Your task to perform on an android device: Go to display settings Image 0: 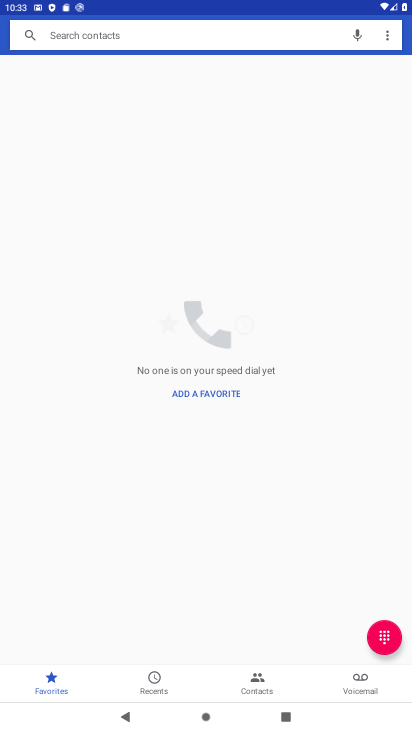
Step 0: press home button
Your task to perform on an android device: Go to display settings Image 1: 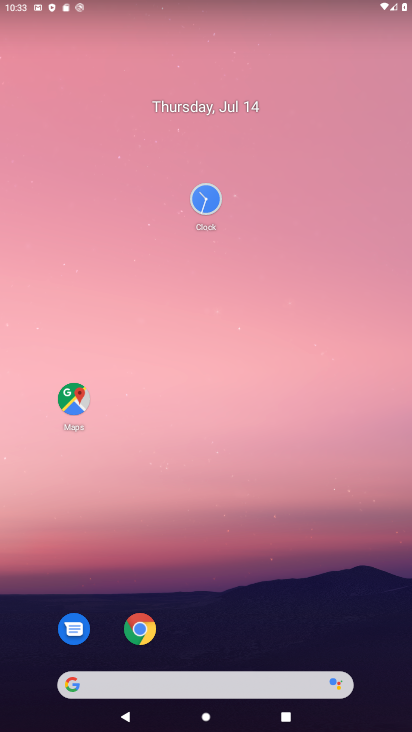
Step 1: drag from (284, 625) to (258, 142)
Your task to perform on an android device: Go to display settings Image 2: 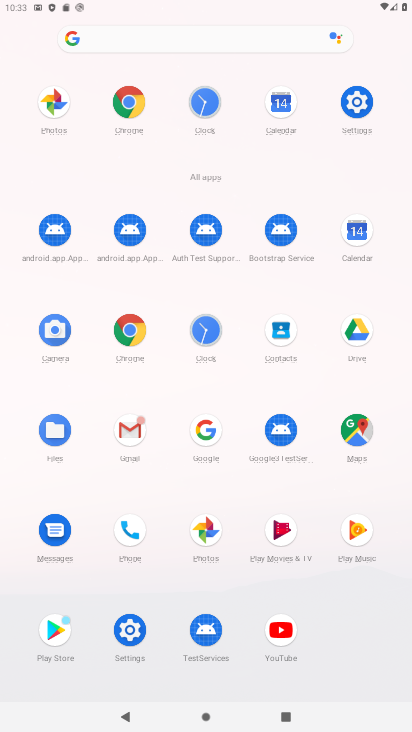
Step 2: drag from (356, 105) to (99, 204)
Your task to perform on an android device: Go to display settings Image 3: 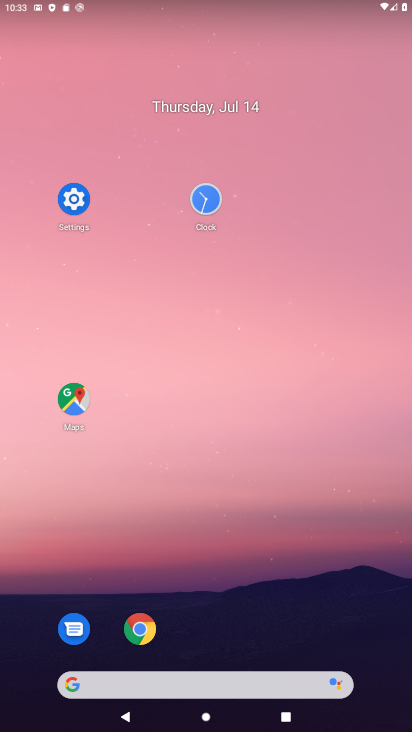
Step 3: click (83, 194)
Your task to perform on an android device: Go to display settings Image 4: 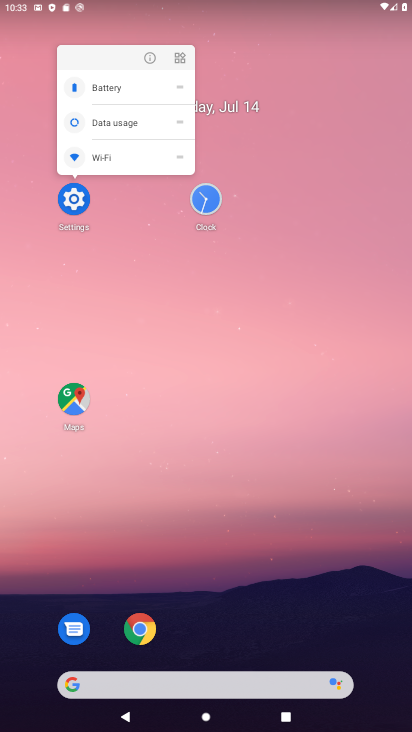
Step 4: click (82, 194)
Your task to perform on an android device: Go to display settings Image 5: 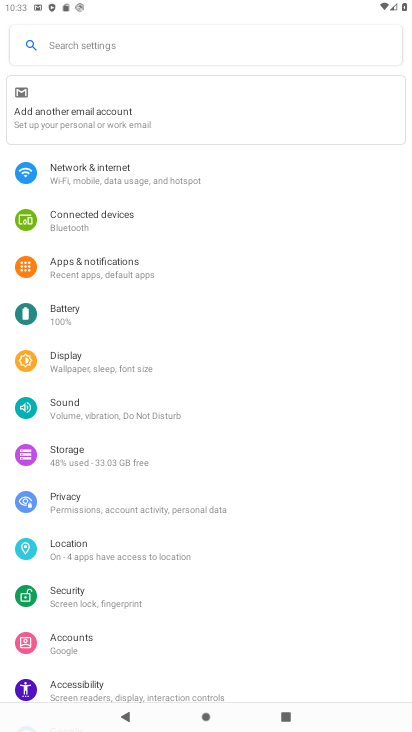
Step 5: click (91, 364)
Your task to perform on an android device: Go to display settings Image 6: 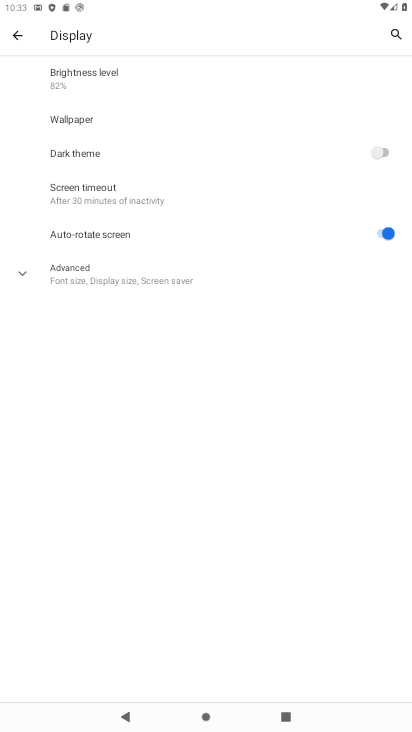
Step 6: task complete